Your task to perform on an android device: turn pop-ups off in chrome Image 0: 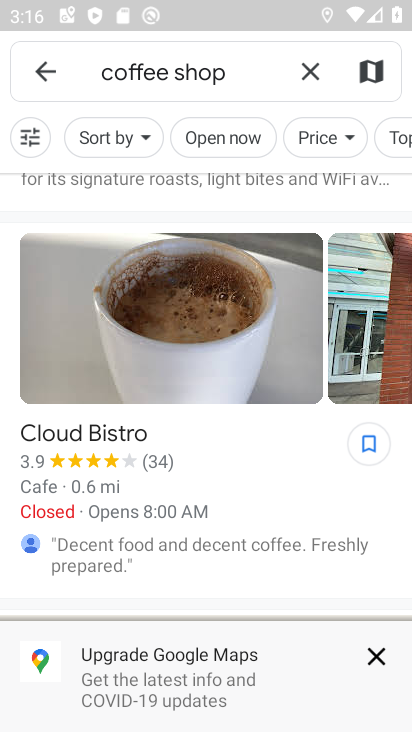
Step 0: press home button
Your task to perform on an android device: turn pop-ups off in chrome Image 1: 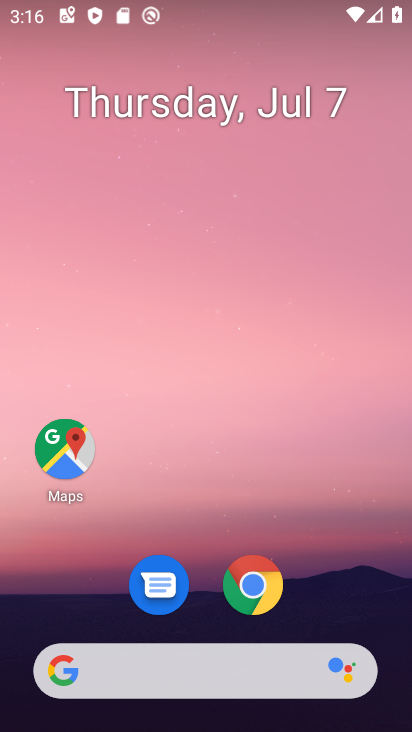
Step 1: click (255, 571)
Your task to perform on an android device: turn pop-ups off in chrome Image 2: 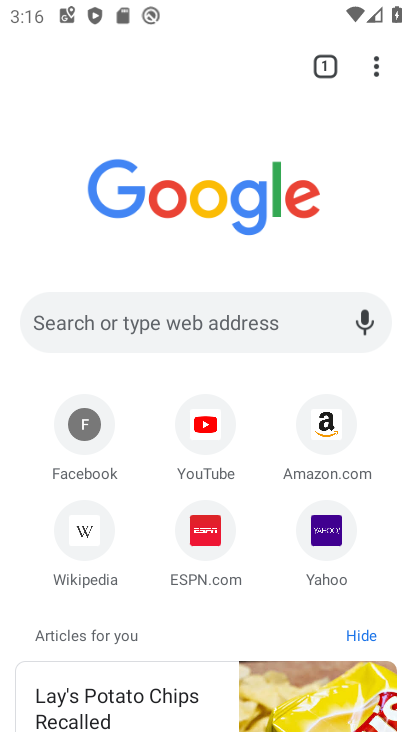
Step 2: click (376, 62)
Your task to perform on an android device: turn pop-ups off in chrome Image 3: 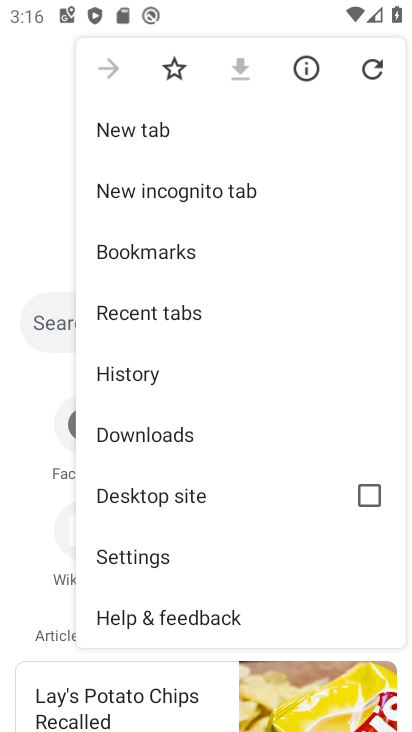
Step 3: click (171, 547)
Your task to perform on an android device: turn pop-ups off in chrome Image 4: 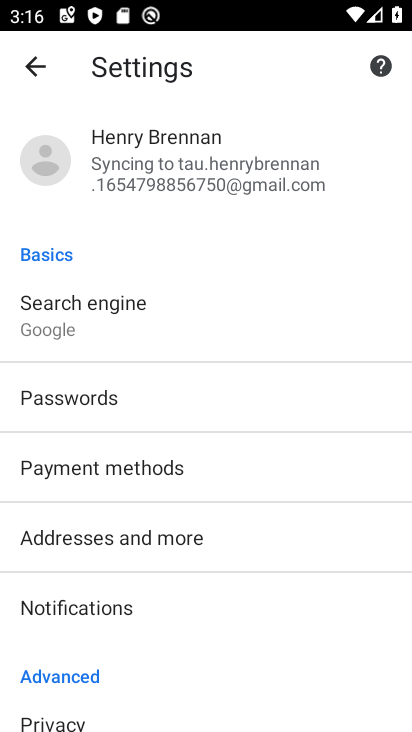
Step 4: drag from (206, 602) to (238, 278)
Your task to perform on an android device: turn pop-ups off in chrome Image 5: 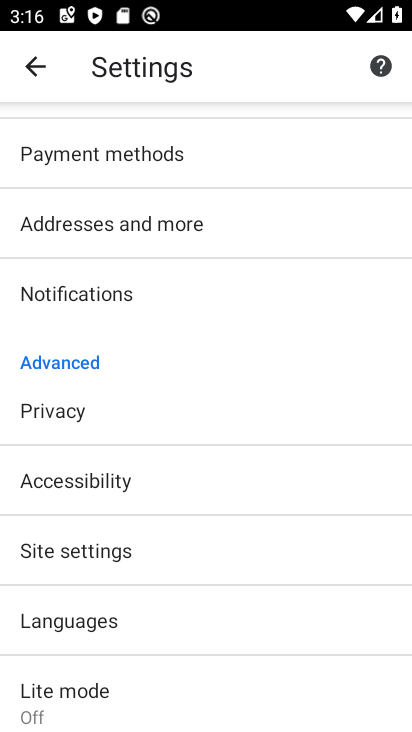
Step 5: click (112, 548)
Your task to perform on an android device: turn pop-ups off in chrome Image 6: 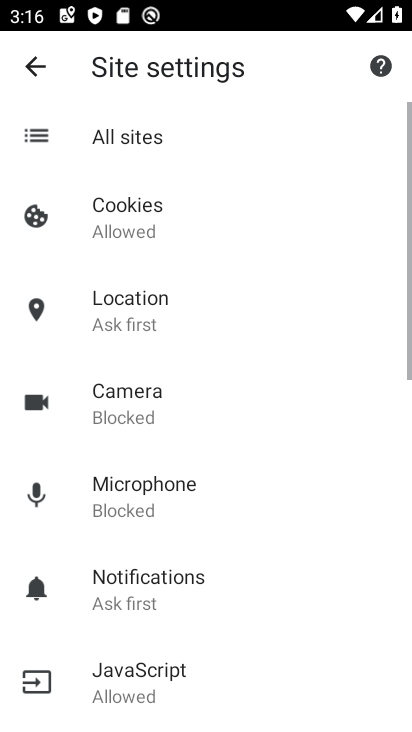
Step 6: drag from (253, 611) to (244, 215)
Your task to perform on an android device: turn pop-ups off in chrome Image 7: 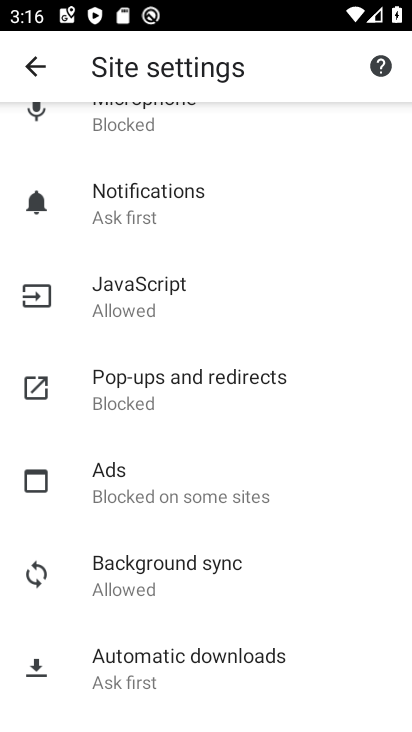
Step 7: click (263, 390)
Your task to perform on an android device: turn pop-ups off in chrome Image 8: 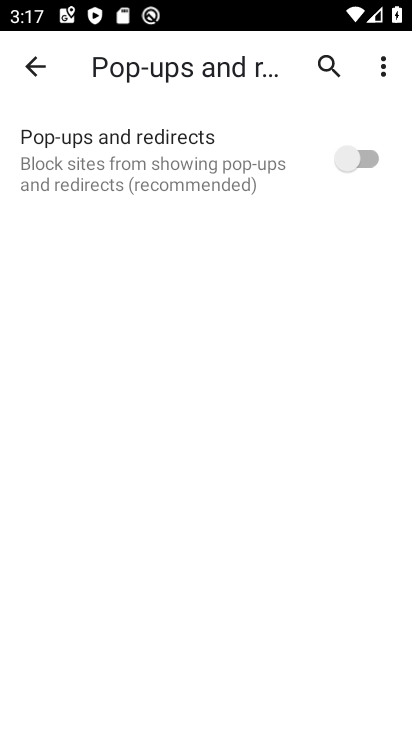
Step 8: task complete